Your task to perform on an android device: Open calendar and show me the first week of next month Image 0: 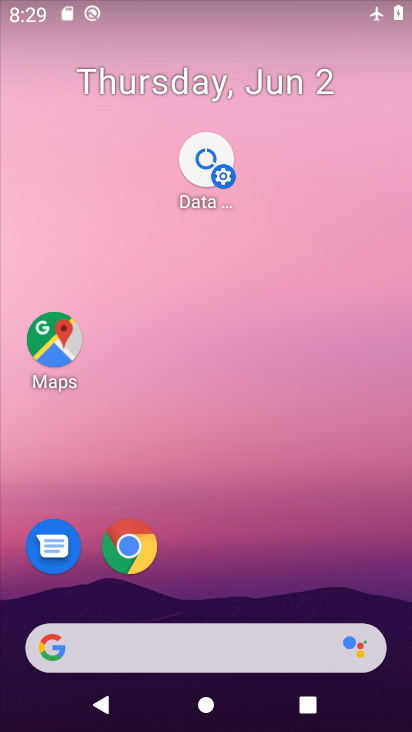
Step 0: drag from (190, 324) to (131, 117)
Your task to perform on an android device: Open calendar and show me the first week of next month Image 1: 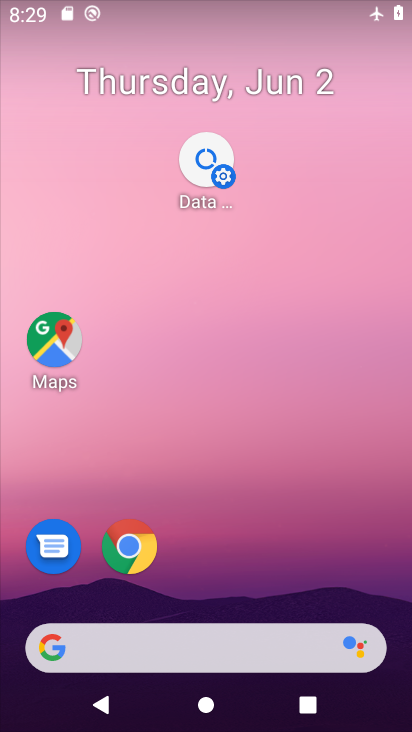
Step 1: drag from (210, 407) to (164, 55)
Your task to perform on an android device: Open calendar and show me the first week of next month Image 2: 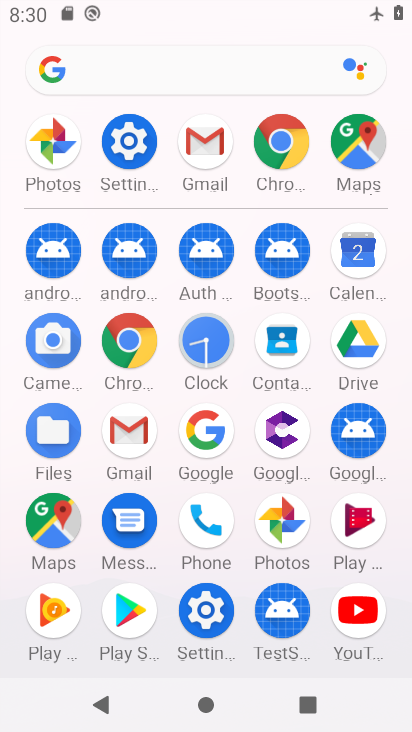
Step 2: click (364, 249)
Your task to perform on an android device: Open calendar and show me the first week of next month Image 3: 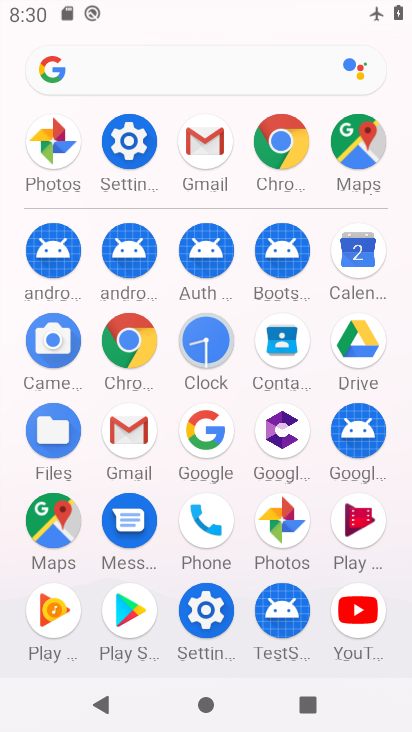
Step 3: click (362, 247)
Your task to perform on an android device: Open calendar and show me the first week of next month Image 4: 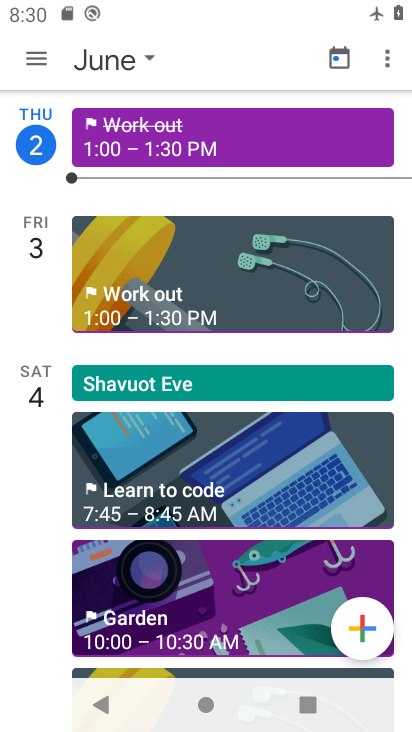
Step 4: click (147, 54)
Your task to perform on an android device: Open calendar and show me the first week of next month Image 5: 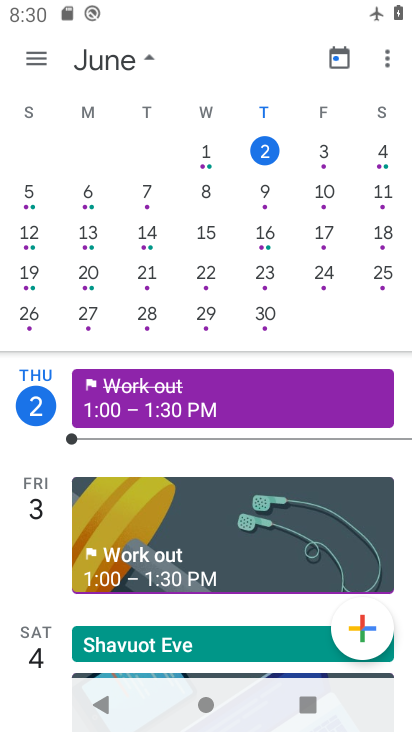
Step 5: task complete